Your task to perform on an android device: Open Google Maps and go to "Timeline" Image 0: 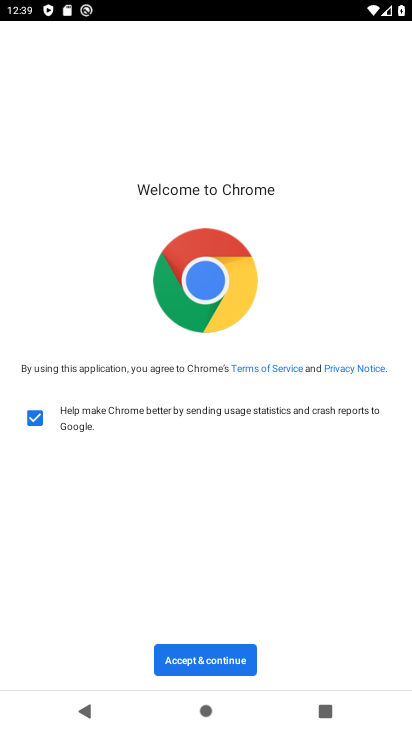
Step 0: press home button
Your task to perform on an android device: Open Google Maps and go to "Timeline" Image 1: 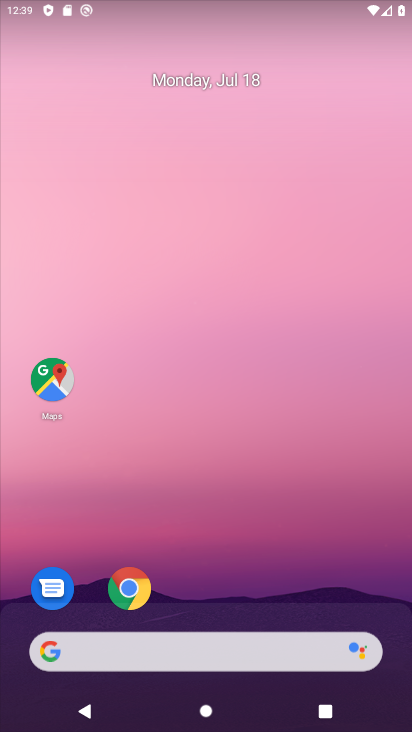
Step 1: click (54, 373)
Your task to perform on an android device: Open Google Maps and go to "Timeline" Image 2: 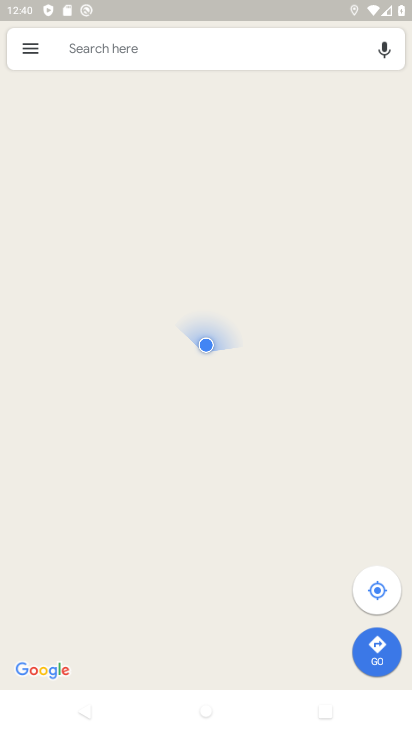
Step 2: click (33, 50)
Your task to perform on an android device: Open Google Maps and go to "Timeline" Image 3: 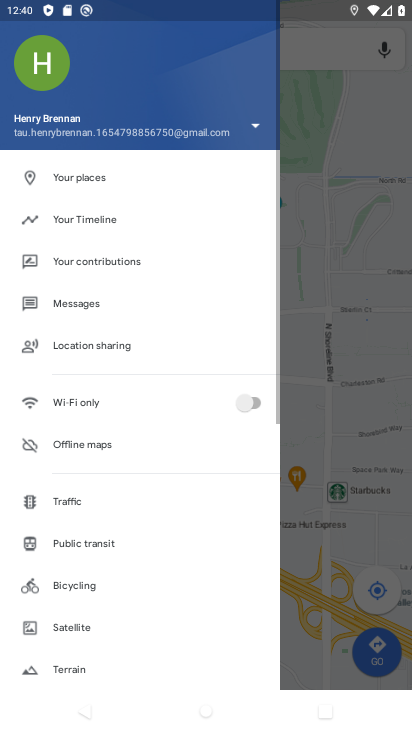
Step 3: click (112, 221)
Your task to perform on an android device: Open Google Maps and go to "Timeline" Image 4: 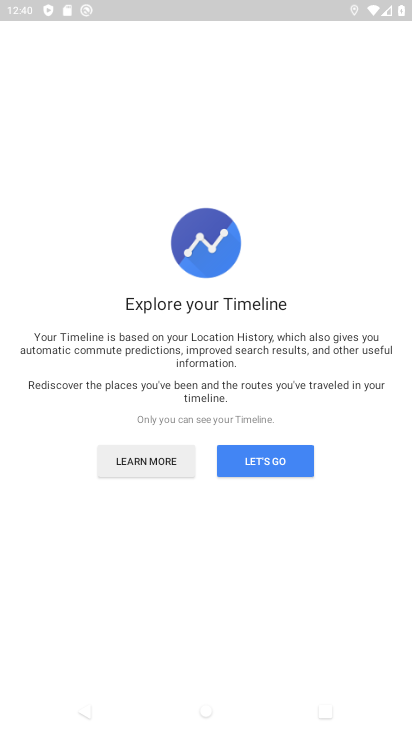
Step 4: task complete